Your task to perform on an android device: Play the last video I watched on Youtube Image 0: 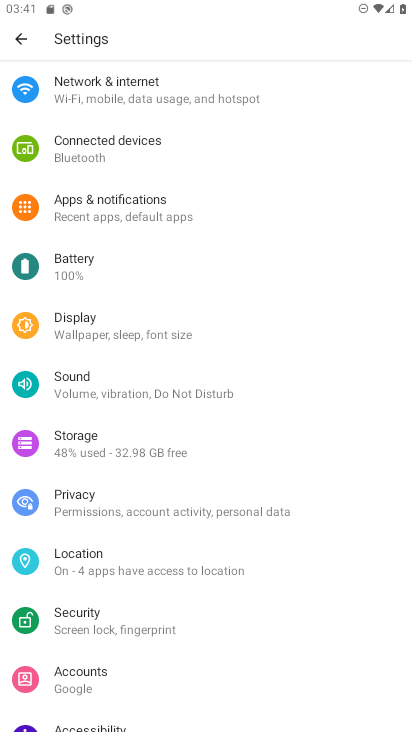
Step 0: press home button
Your task to perform on an android device: Play the last video I watched on Youtube Image 1: 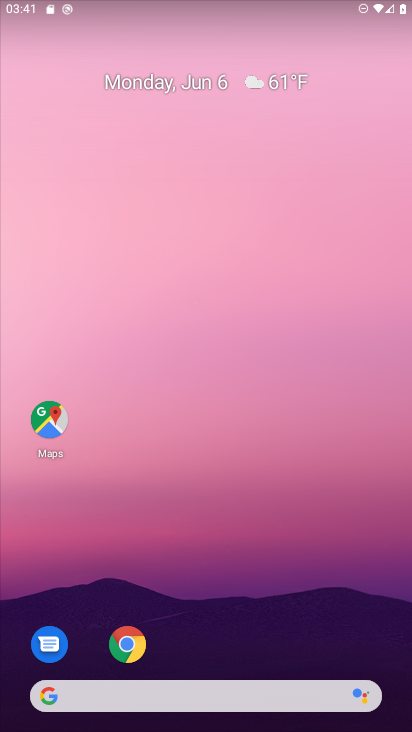
Step 1: drag from (239, 637) to (327, 1)
Your task to perform on an android device: Play the last video I watched on Youtube Image 2: 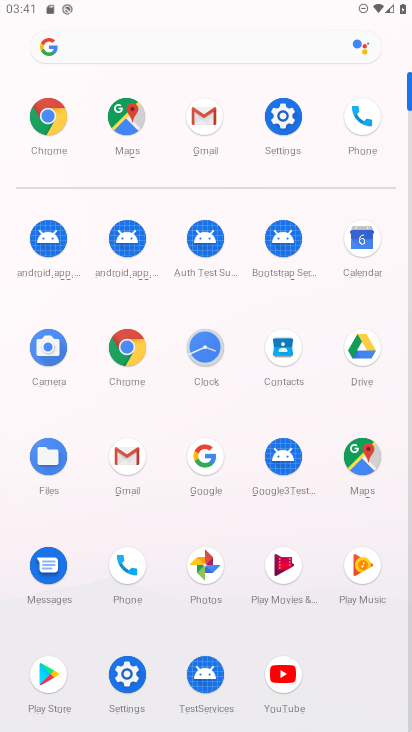
Step 2: click (296, 664)
Your task to perform on an android device: Play the last video I watched on Youtube Image 3: 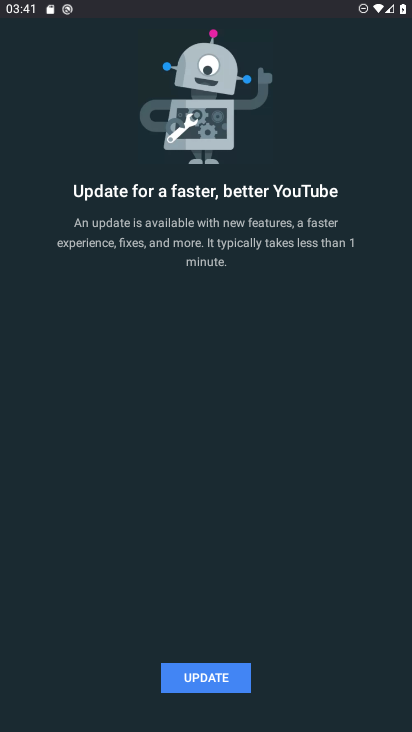
Step 3: click (231, 680)
Your task to perform on an android device: Play the last video I watched on Youtube Image 4: 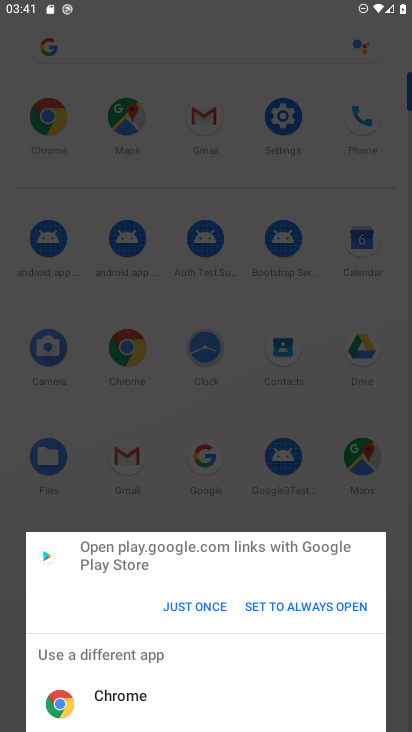
Step 4: click (195, 605)
Your task to perform on an android device: Play the last video I watched on Youtube Image 5: 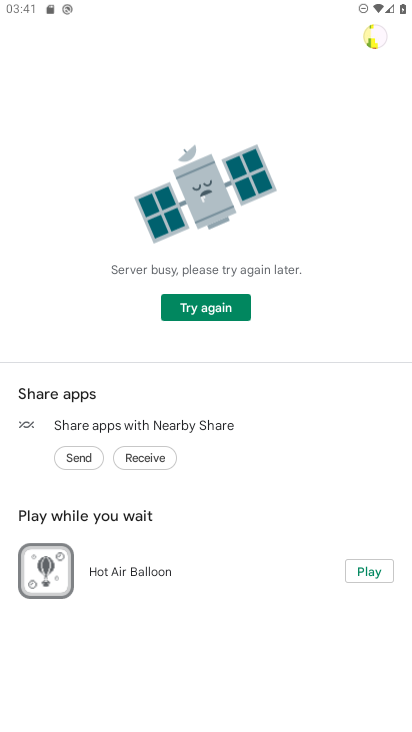
Step 5: click (200, 296)
Your task to perform on an android device: Play the last video I watched on Youtube Image 6: 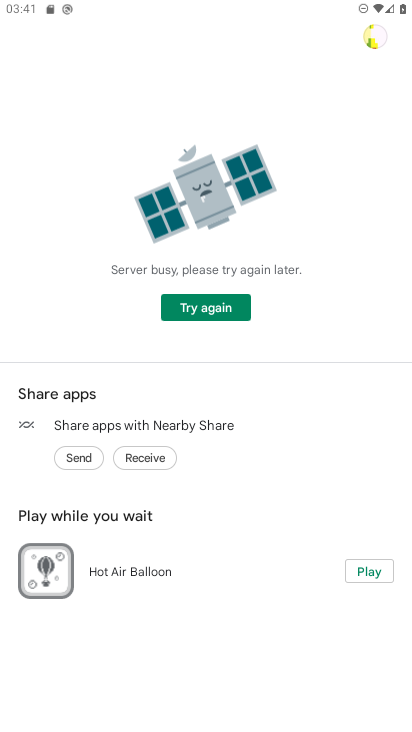
Step 6: click (199, 304)
Your task to perform on an android device: Play the last video I watched on Youtube Image 7: 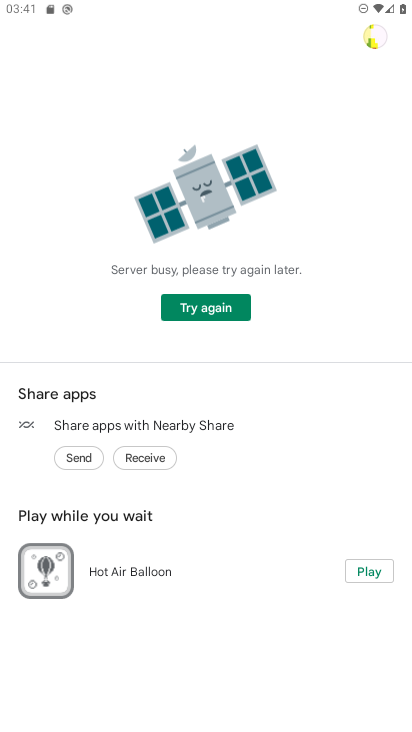
Step 7: click (200, 307)
Your task to perform on an android device: Play the last video I watched on Youtube Image 8: 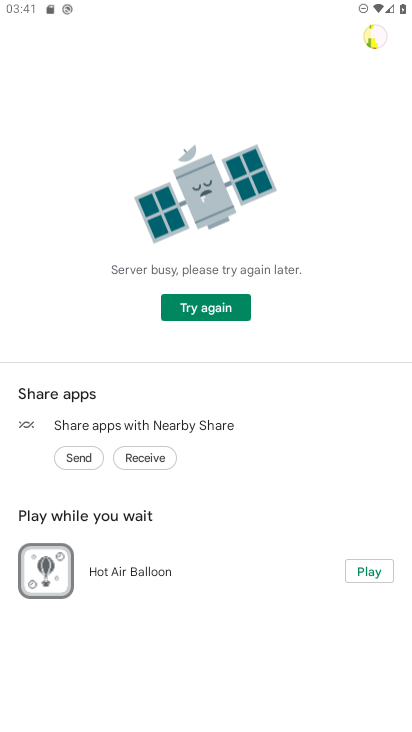
Step 8: click (200, 308)
Your task to perform on an android device: Play the last video I watched on Youtube Image 9: 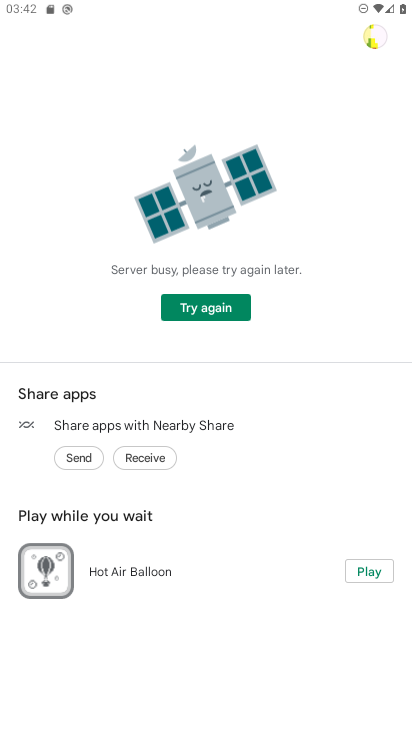
Step 9: click (200, 308)
Your task to perform on an android device: Play the last video I watched on Youtube Image 10: 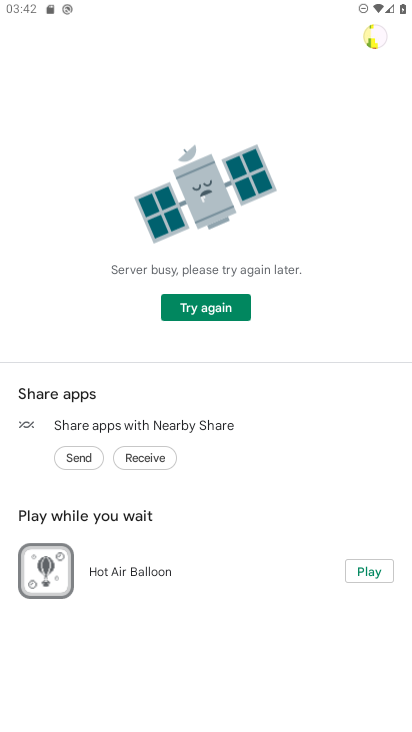
Step 10: task complete